Your task to perform on an android device: How do I get to the nearest AT&T Store? Image 0: 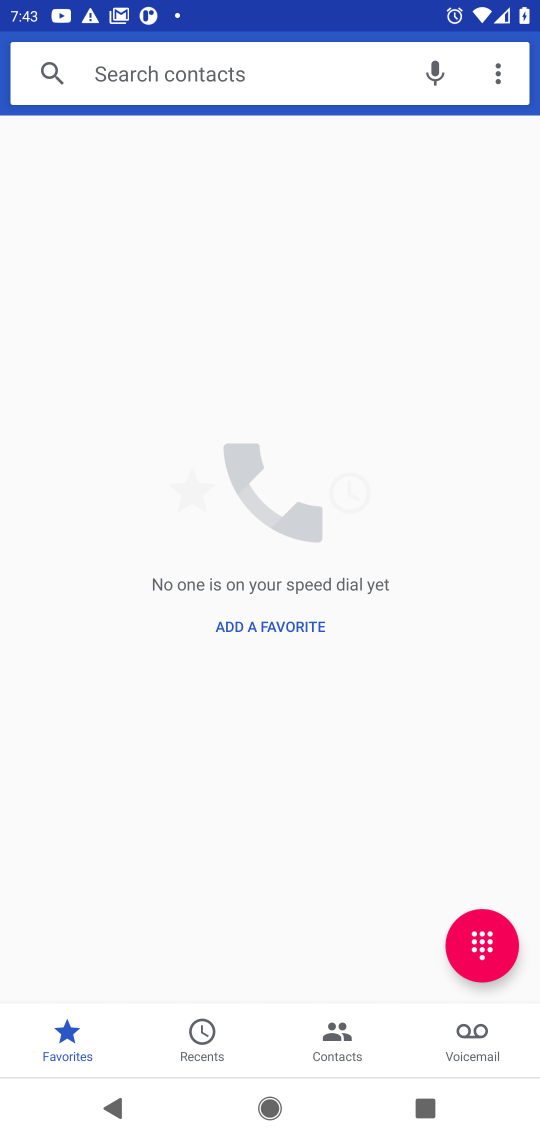
Step 0: press home button
Your task to perform on an android device: How do I get to the nearest AT&T Store? Image 1: 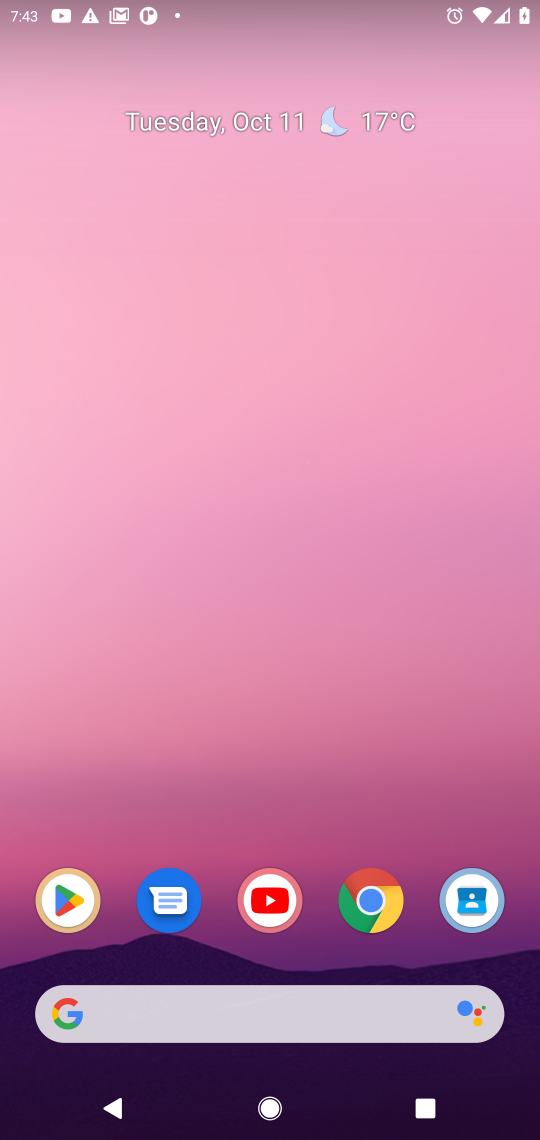
Step 1: click (369, 905)
Your task to perform on an android device: How do I get to the nearest AT&T Store? Image 2: 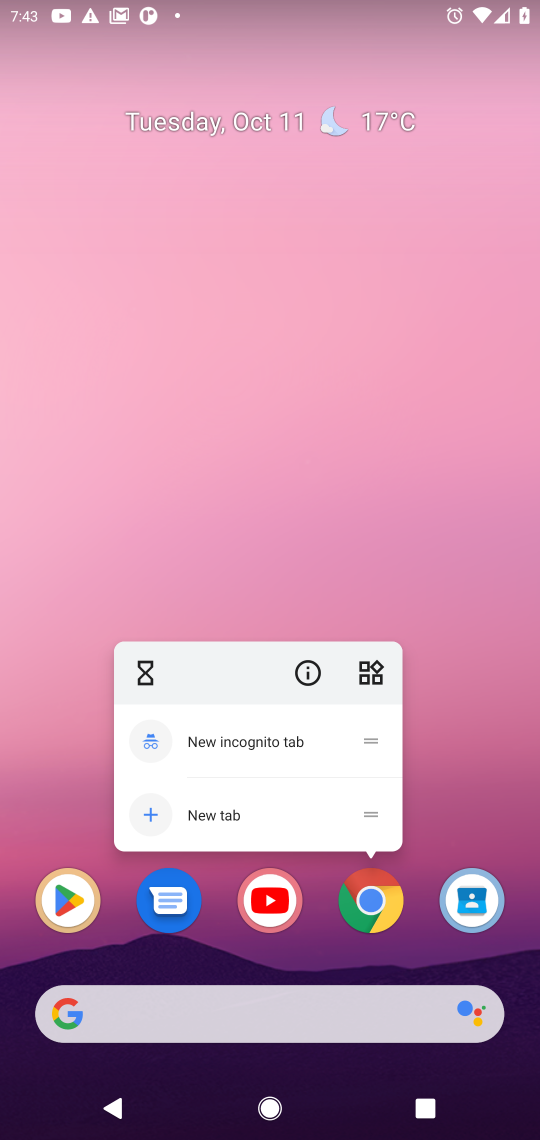
Step 2: click (369, 905)
Your task to perform on an android device: How do I get to the nearest AT&T Store? Image 3: 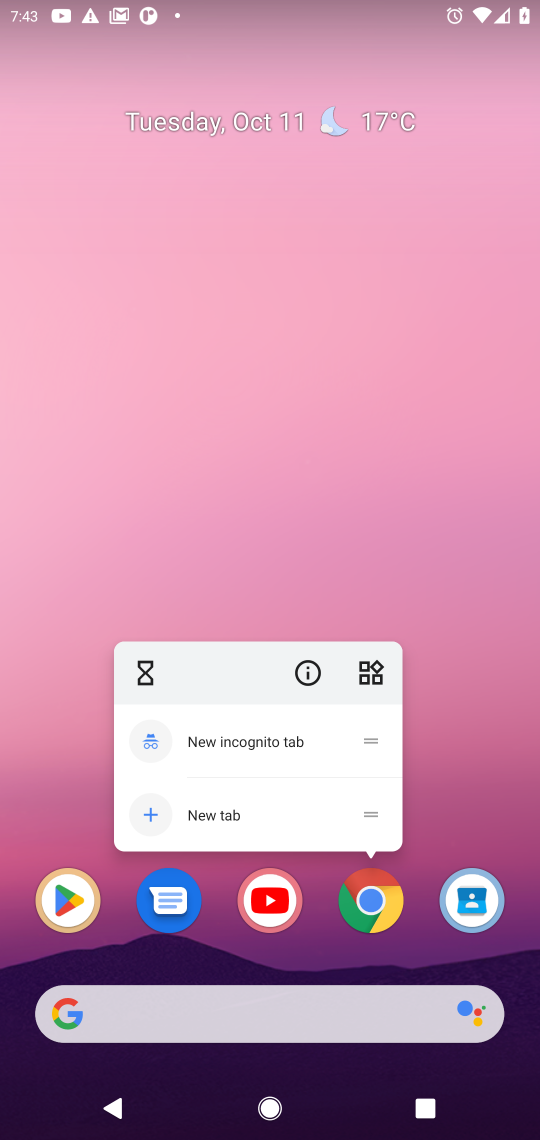
Step 3: click (369, 905)
Your task to perform on an android device: How do I get to the nearest AT&T Store? Image 4: 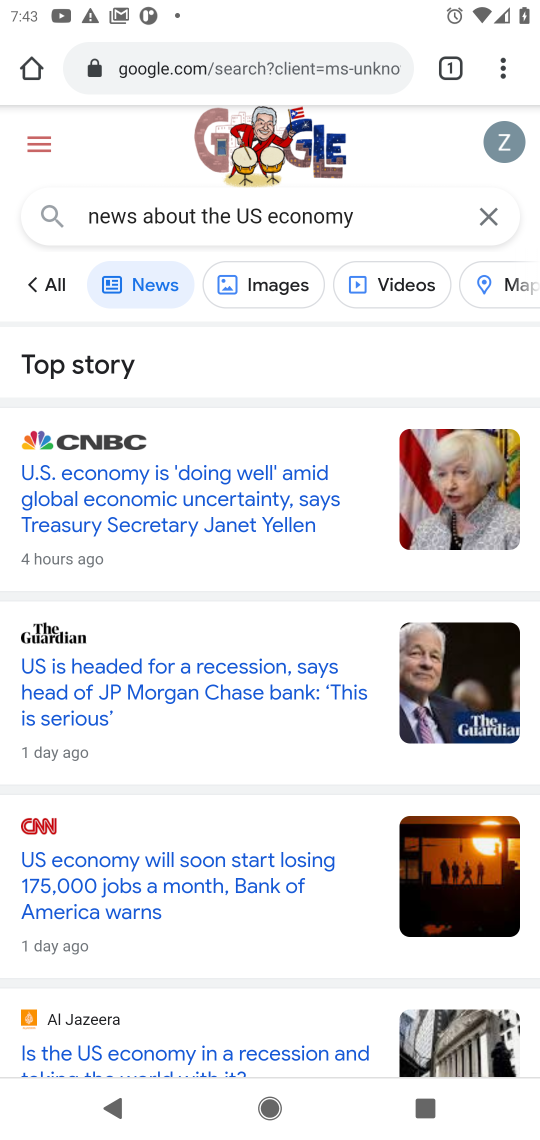
Step 4: click (279, 63)
Your task to perform on an android device: How do I get to the nearest AT&T Store? Image 5: 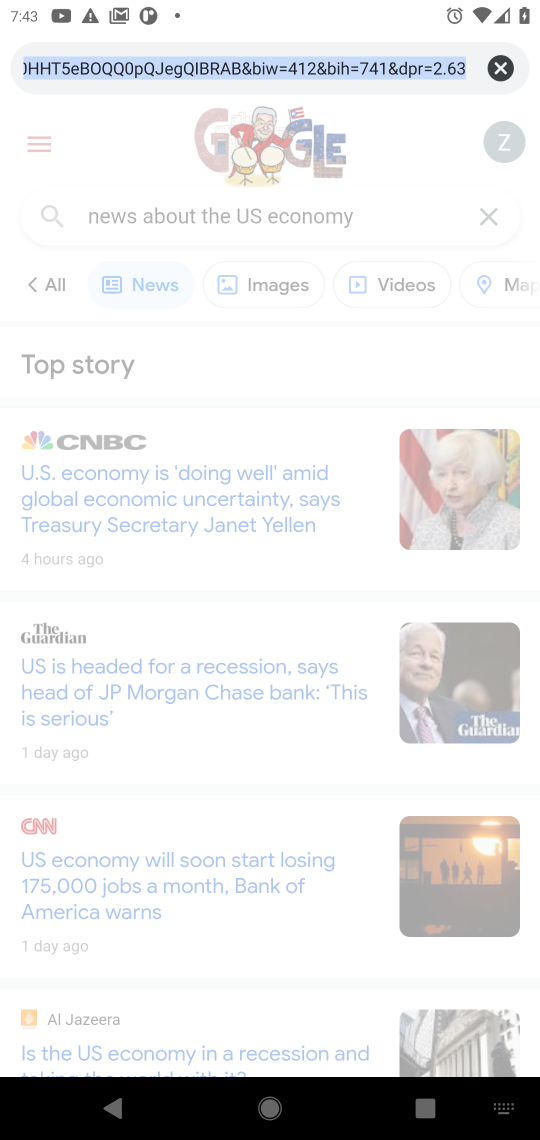
Step 5: click (506, 64)
Your task to perform on an android device: How do I get to the nearest AT&T Store? Image 6: 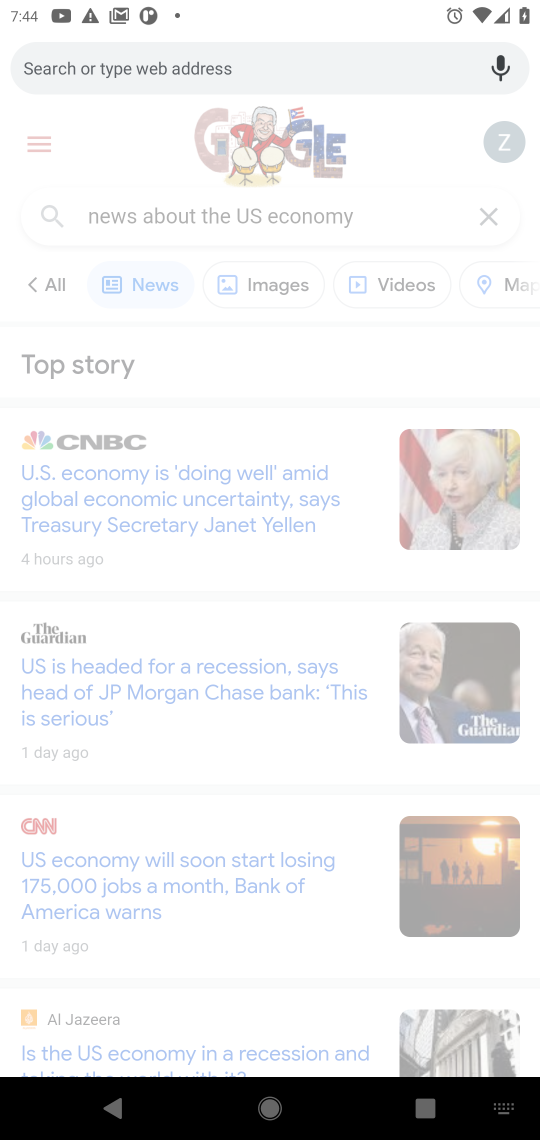
Step 6: type "How do I get to the nearest AT&T Store"
Your task to perform on an android device: How do I get to the nearest AT&T Store? Image 7: 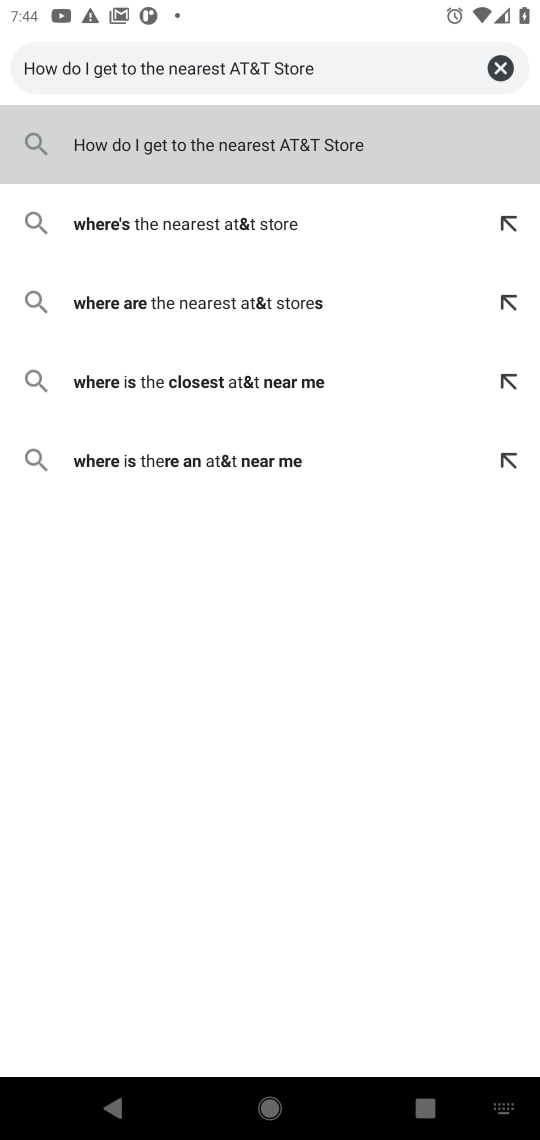
Step 7: press enter
Your task to perform on an android device: How do I get to the nearest AT&T Store? Image 8: 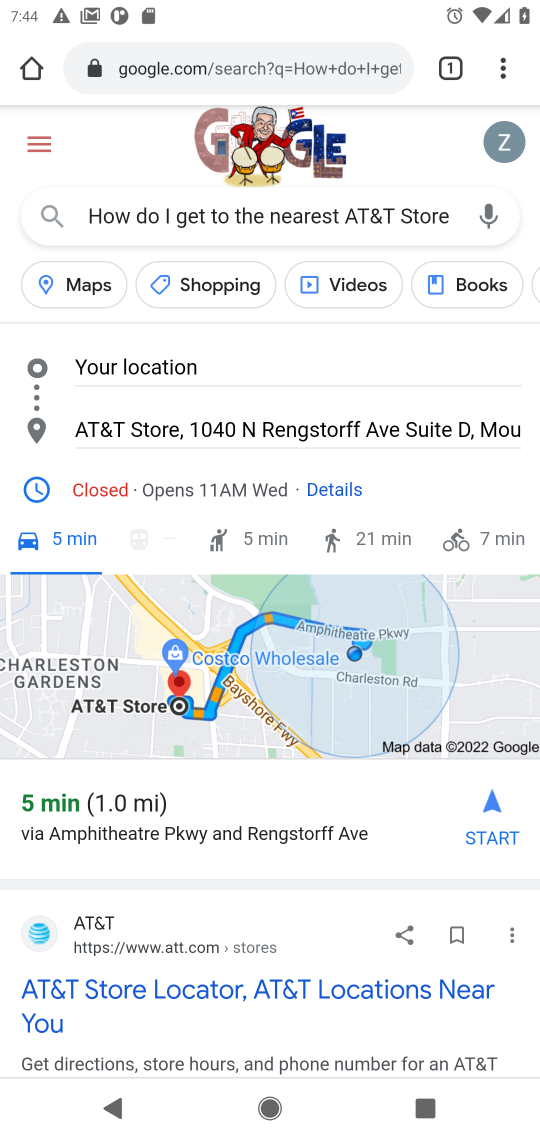
Step 8: task complete